Your task to perform on an android device: Open Google Chrome and open the bookmarks view Image 0: 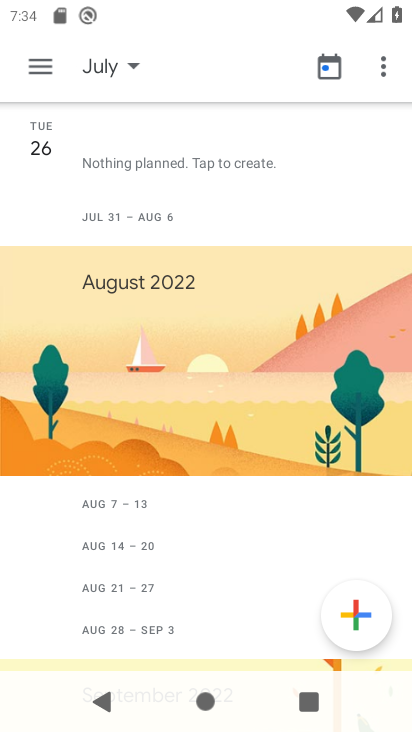
Step 0: press home button
Your task to perform on an android device: Open Google Chrome and open the bookmarks view Image 1: 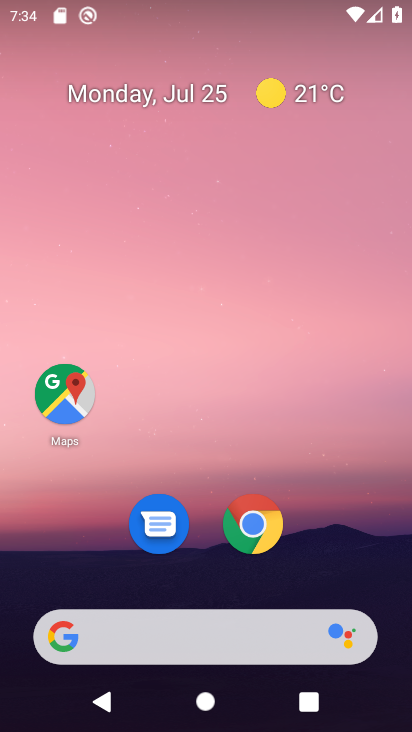
Step 1: click (261, 535)
Your task to perform on an android device: Open Google Chrome and open the bookmarks view Image 2: 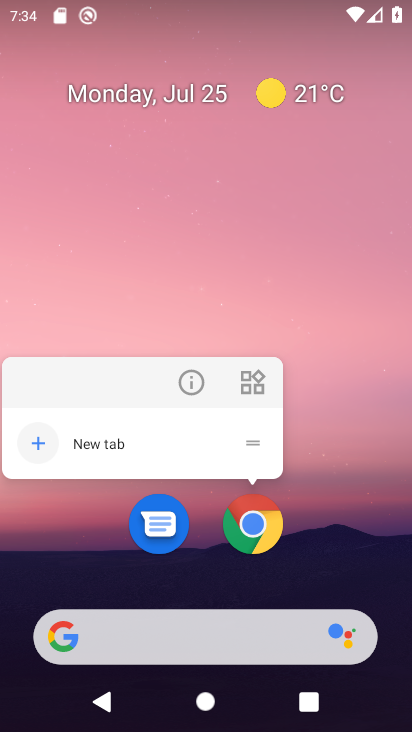
Step 2: click (263, 526)
Your task to perform on an android device: Open Google Chrome and open the bookmarks view Image 3: 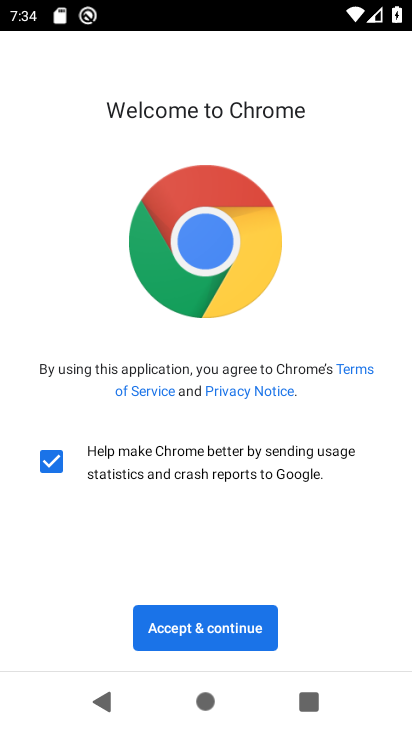
Step 3: click (207, 627)
Your task to perform on an android device: Open Google Chrome and open the bookmarks view Image 4: 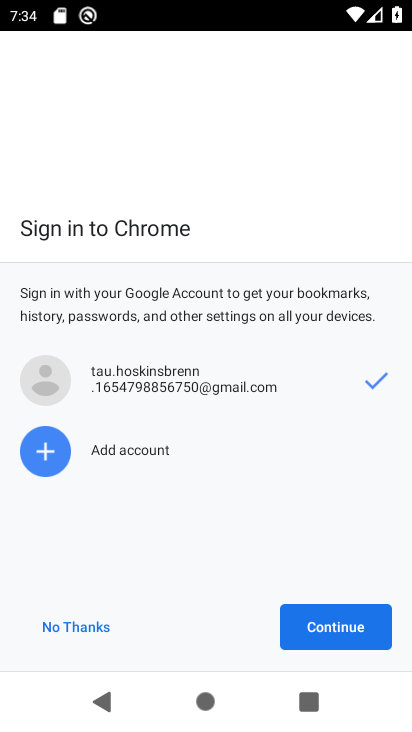
Step 4: click (367, 625)
Your task to perform on an android device: Open Google Chrome and open the bookmarks view Image 5: 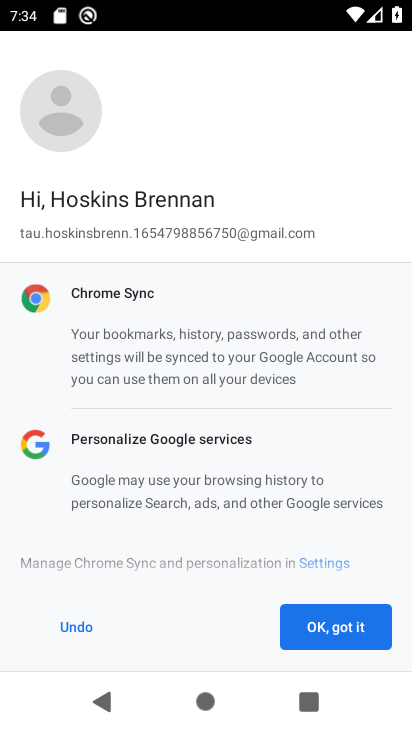
Step 5: click (370, 615)
Your task to perform on an android device: Open Google Chrome and open the bookmarks view Image 6: 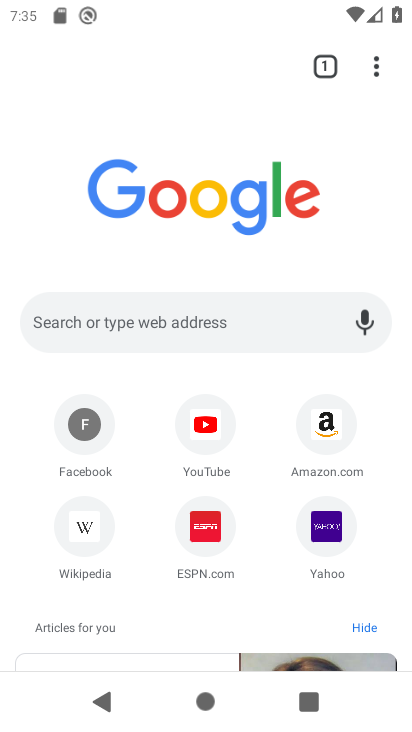
Step 6: task complete